Your task to perform on an android device: turn off javascript in the chrome app Image 0: 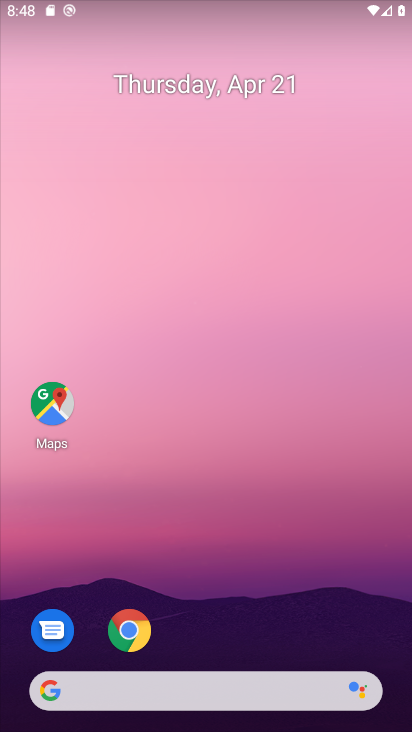
Step 0: click (127, 623)
Your task to perform on an android device: turn off javascript in the chrome app Image 1: 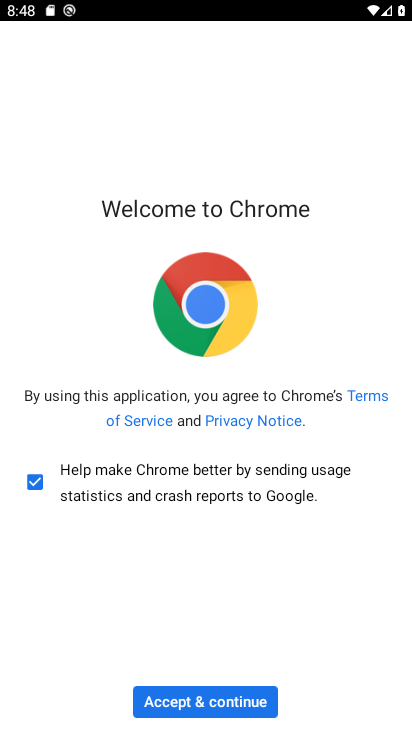
Step 1: click (233, 699)
Your task to perform on an android device: turn off javascript in the chrome app Image 2: 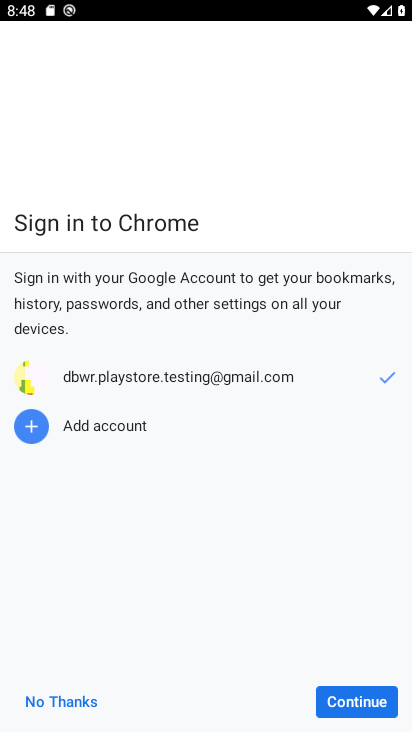
Step 2: click (344, 690)
Your task to perform on an android device: turn off javascript in the chrome app Image 3: 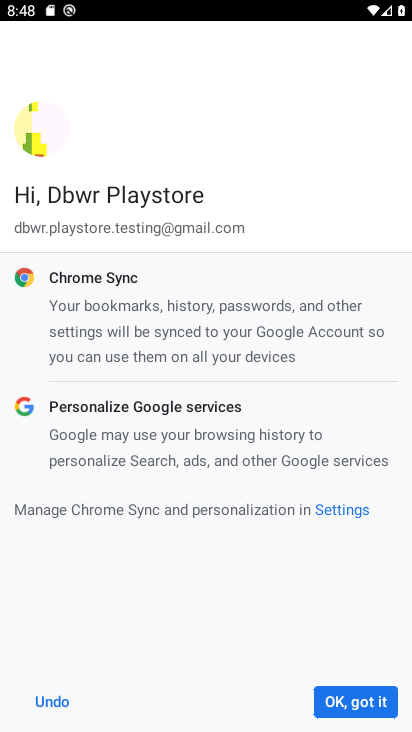
Step 3: click (344, 690)
Your task to perform on an android device: turn off javascript in the chrome app Image 4: 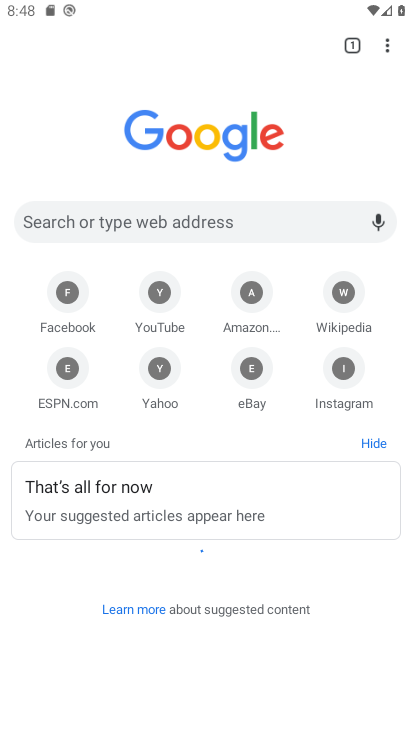
Step 4: click (389, 52)
Your task to perform on an android device: turn off javascript in the chrome app Image 5: 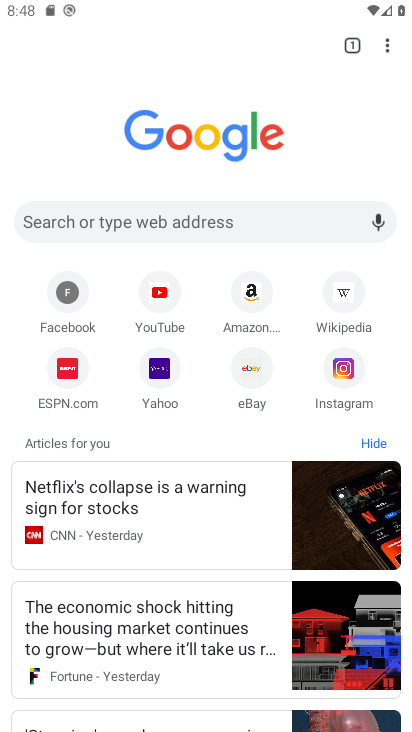
Step 5: click (393, 46)
Your task to perform on an android device: turn off javascript in the chrome app Image 6: 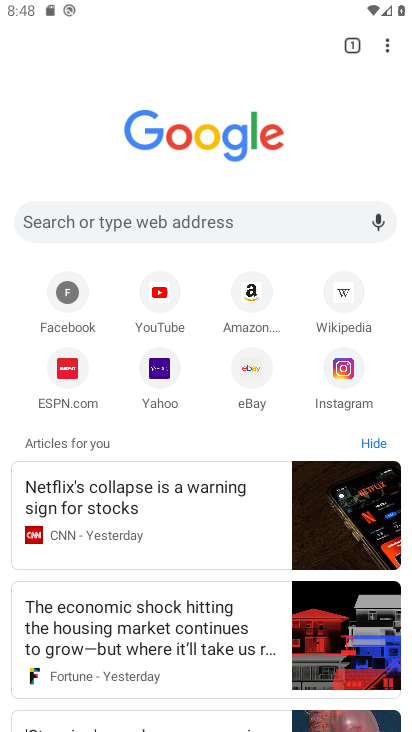
Step 6: click (394, 48)
Your task to perform on an android device: turn off javascript in the chrome app Image 7: 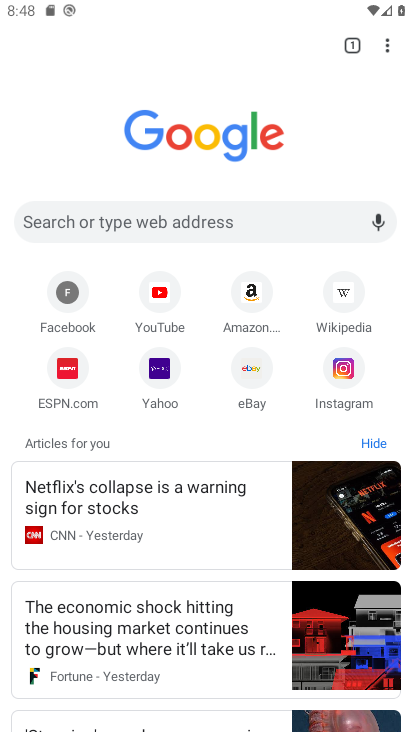
Step 7: click (383, 46)
Your task to perform on an android device: turn off javascript in the chrome app Image 8: 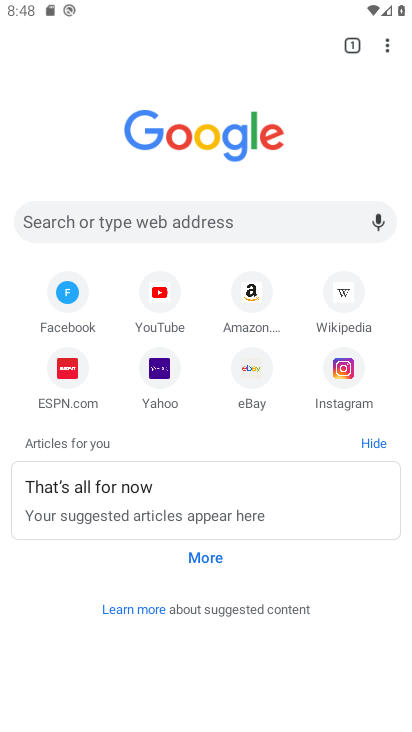
Step 8: click (389, 48)
Your task to perform on an android device: turn off javascript in the chrome app Image 9: 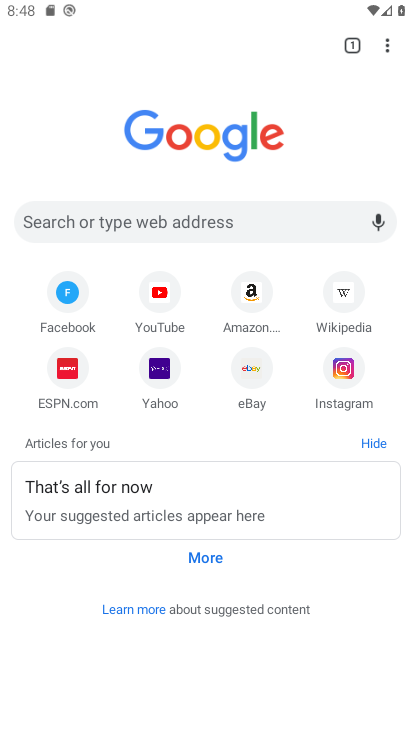
Step 9: click (382, 45)
Your task to perform on an android device: turn off javascript in the chrome app Image 10: 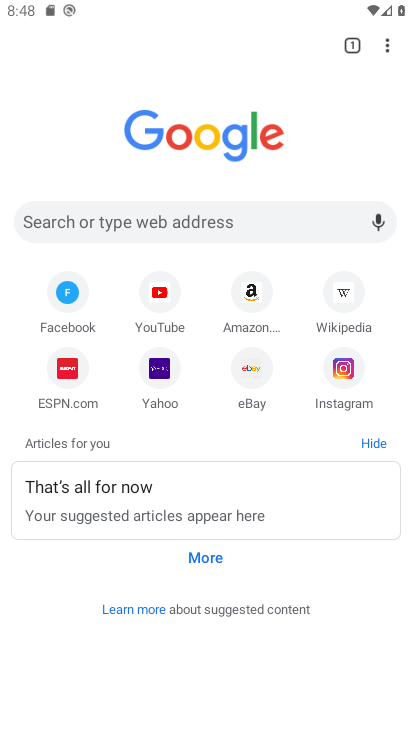
Step 10: click (388, 38)
Your task to perform on an android device: turn off javascript in the chrome app Image 11: 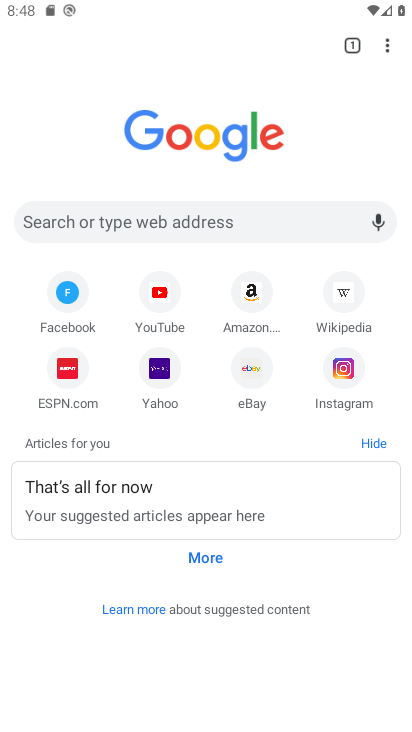
Step 11: click (387, 57)
Your task to perform on an android device: turn off javascript in the chrome app Image 12: 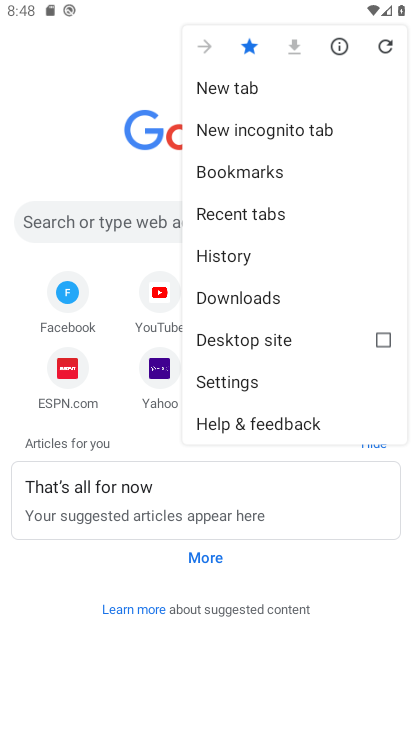
Step 12: click (240, 385)
Your task to perform on an android device: turn off javascript in the chrome app Image 13: 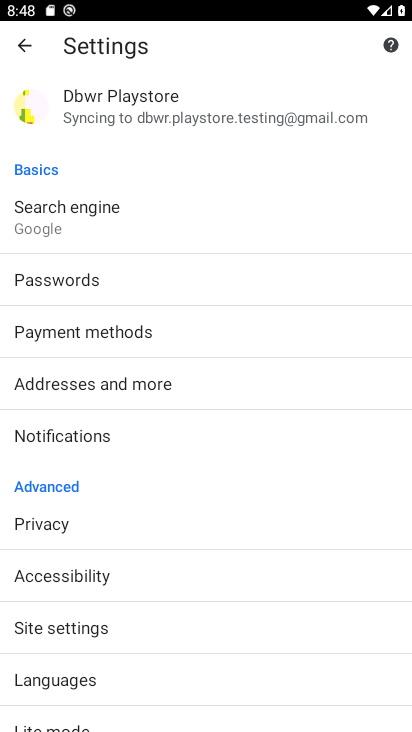
Step 13: drag from (58, 668) to (72, 516)
Your task to perform on an android device: turn off javascript in the chrome app Image 14: 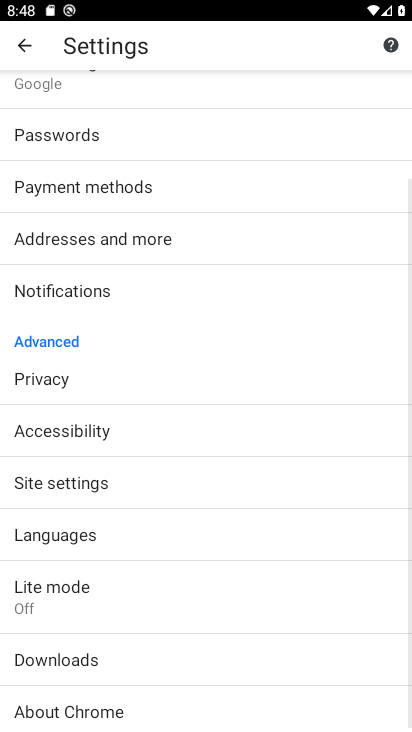
Step 14: click (69, 500)
Your task to perform on an android device: turn off javascript in the chrome app Image 15: 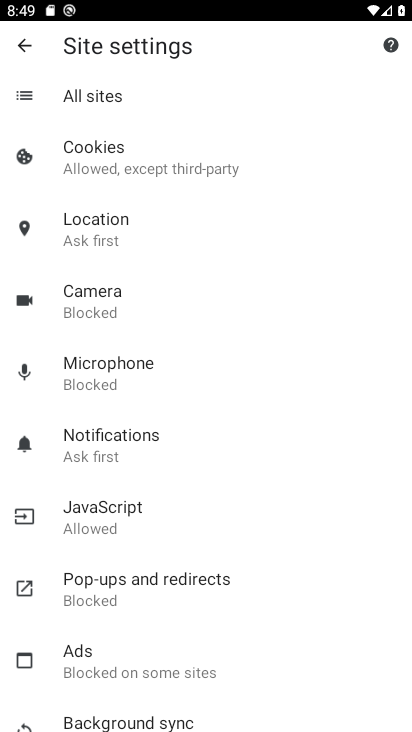
Step 15: click (103, 511)
Your task to perform on an android device: turn off javascript in the chrome app Image 16: 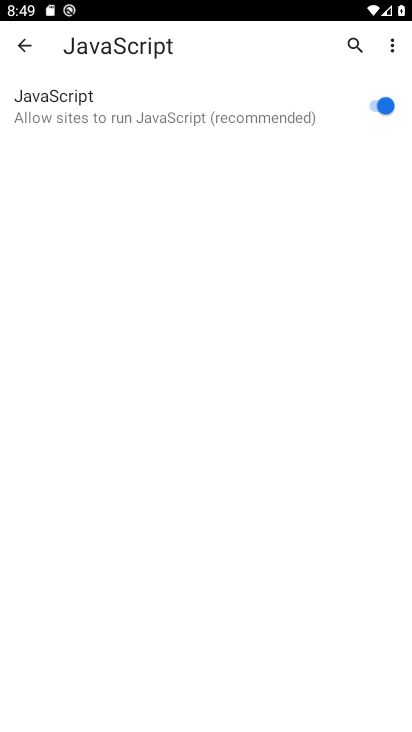
Step 16: click (368, 103)
Your task to perform on an android device: turn off javascript in the chrome app Image 17: 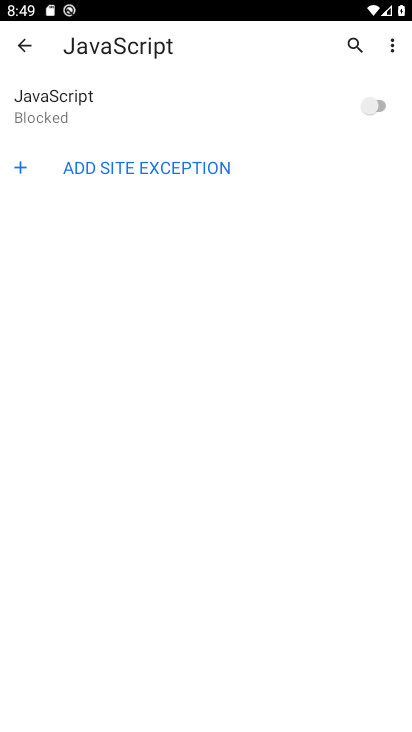
Step 17: task complete